Your task to perform on an android device: open wifi settings Image 0: 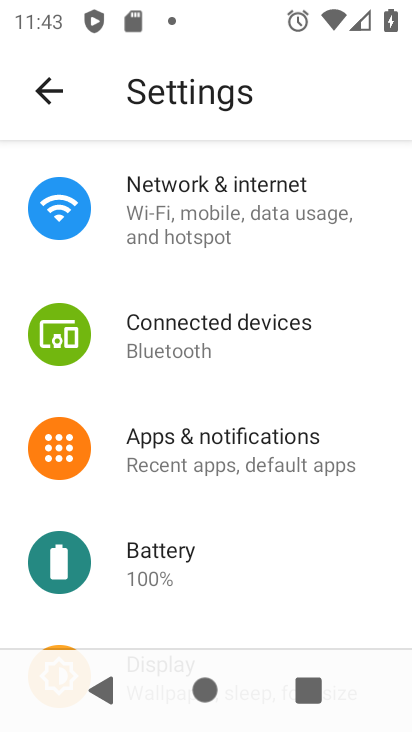
Step 0: click (284, 230)
Your task to perform on an android device: open wifi settings Image 1: 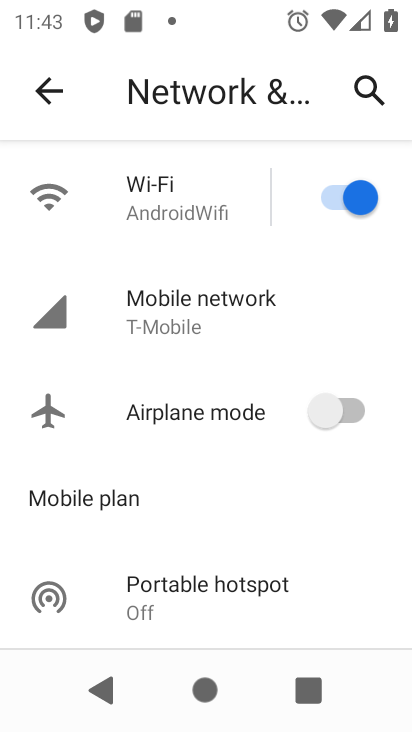
Step 1: click (198, 216)
Your task to perform on an android device: open wifi settings Image 2: 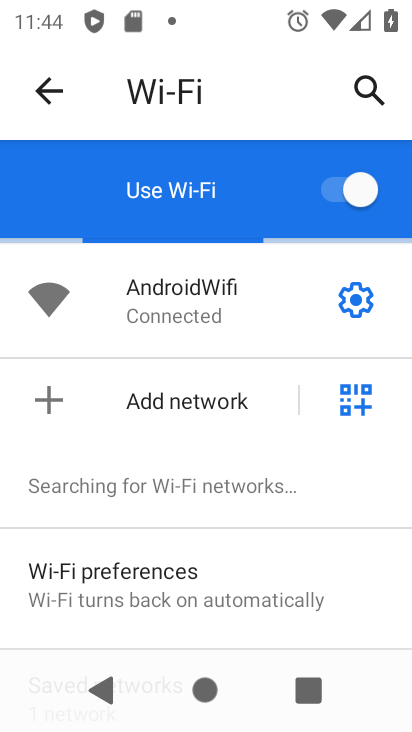
Step 2: task complete